Your task to perform on an android device: turn off translation in the chrome app Image 0: 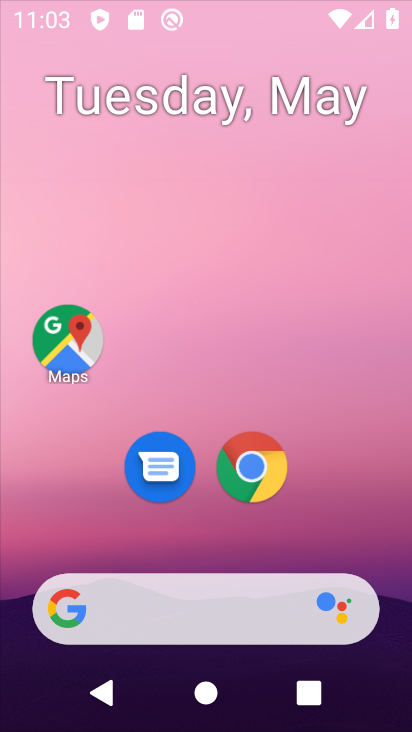
Step 0: click (276, 16)
Your task to perform on an android device: turn off translation in the chrome app Image 1: 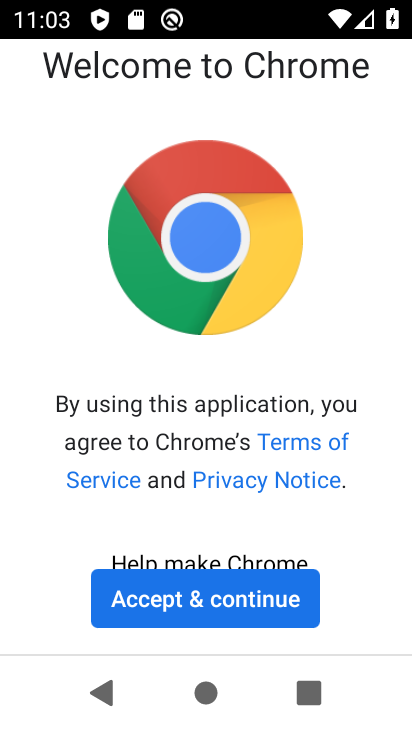
Step 1: click (235, 607)
Your task to perform on an android device: turn off translation in the chrome app Image 2: 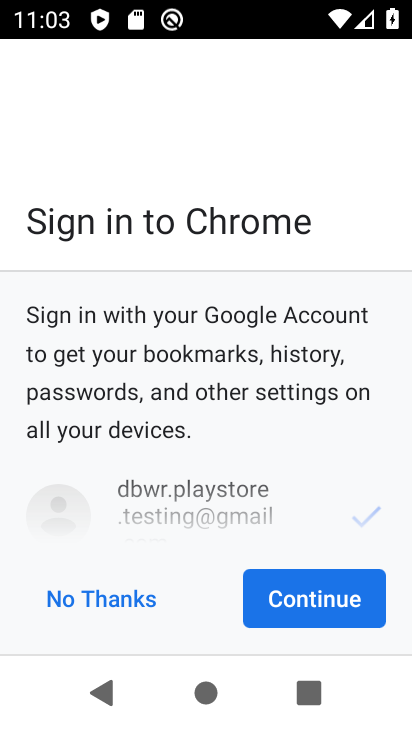
Step 2: click (309, 605)
Your task to perform on an android device: turn off translation in the chrome app Image 3: 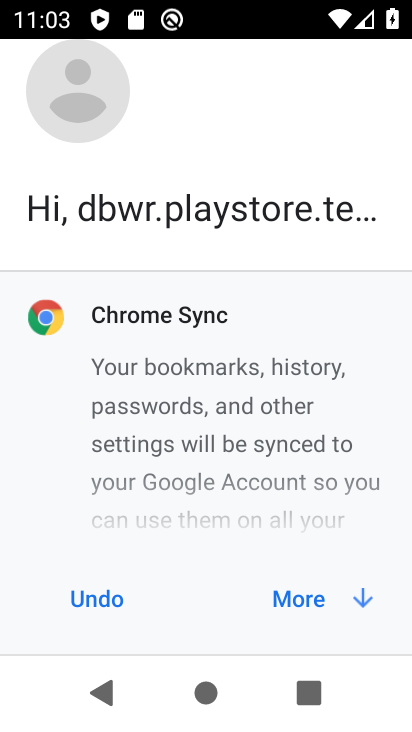
Step 3: click (312, 602)
Your task to perform on an android device: turn off translation in the chrome app Image 4: 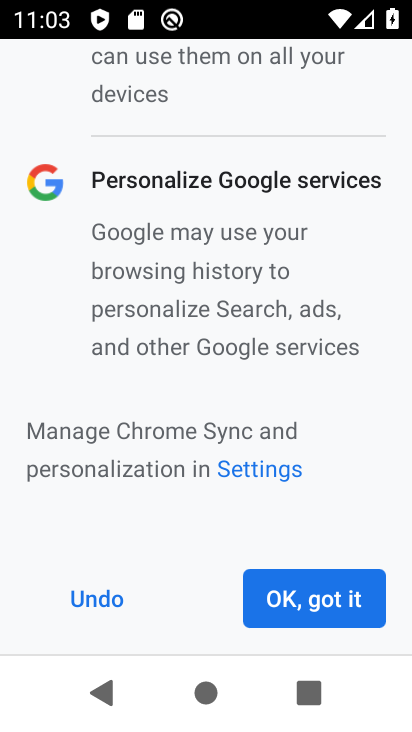
Step 4: click (312, 602)
Your task to perform on an android device: turn off translation in the chrome app Image 5: 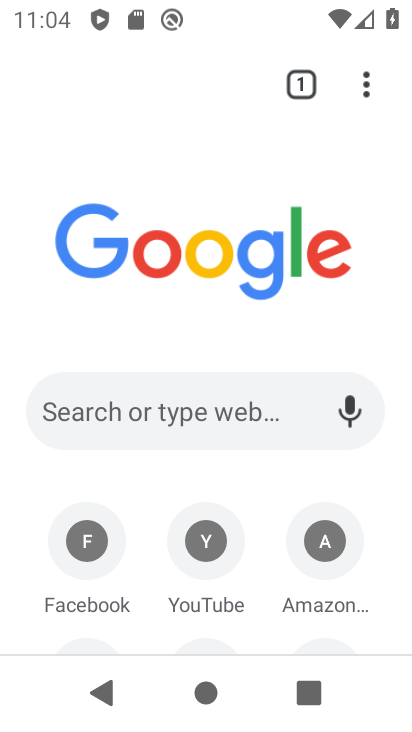
Step 5: drag from (367, 84) to (150, 515)
Your task to perform on an android device: turn off translation in the chrome app Image 6: 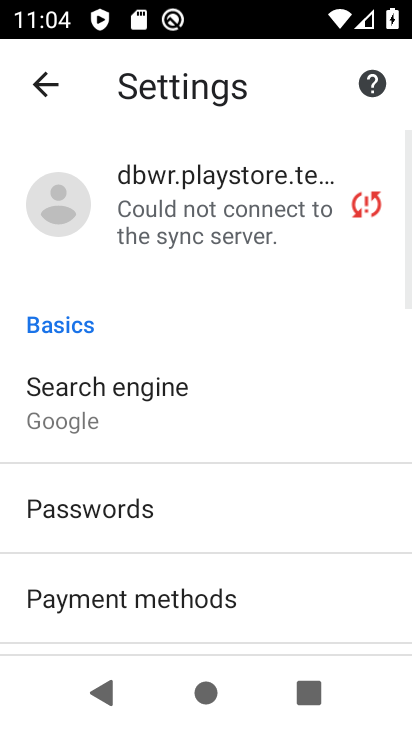
Step 6: drag from (254, 602) to (297, 74)
Your task to perform on an android device: turn off translation in the chrome app Image 7: 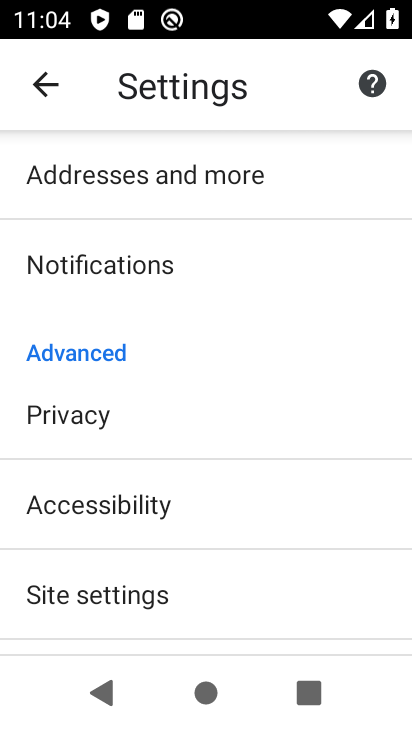
Step 7: drag from (266, 571) to (287, 193)
Your task to perform on an android device: turn off translation in the chrome app Image 8: 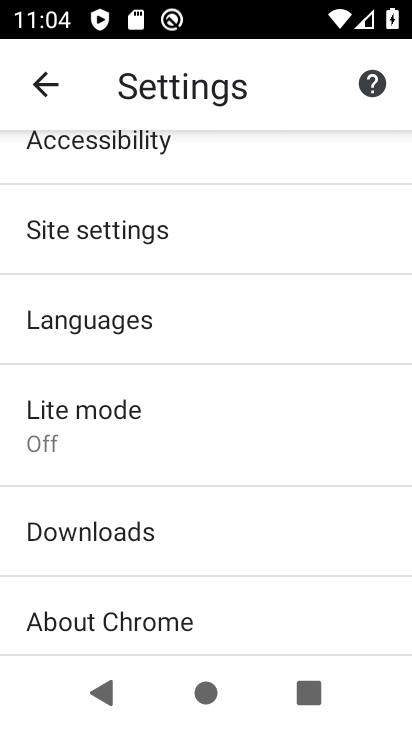
Step 8: click (159, 328)
Your task to perform on an android device: turn off translation in the chrome app Image 9: 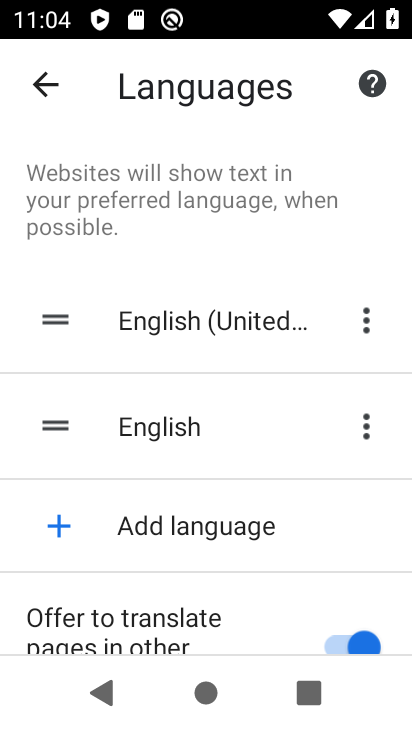
Step 9: drag from (238, 549) to (268, 176)
Your task to perform on an android device: turn off translation in the chrome app Image 10: 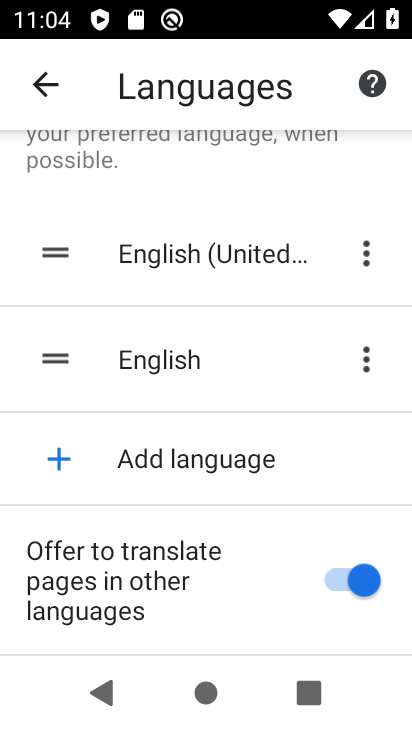
Step 10: click (340, 589)
Your task to perform on an android device: turn off translation in the chrome app Image 11: 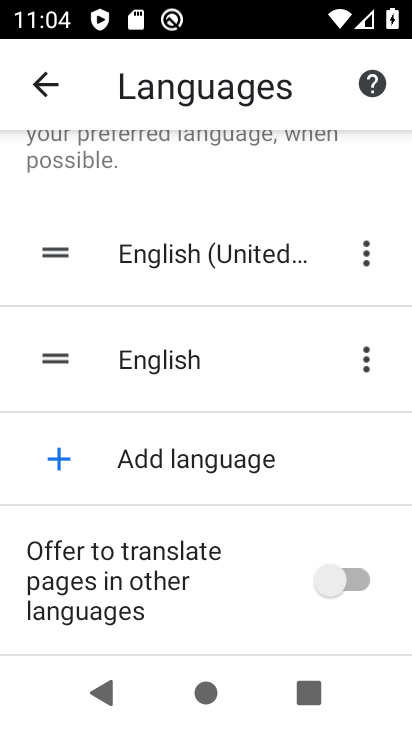
Step 11: task complete